Your task to perform on an android device: turn on javascript in the chrome app Image 0: 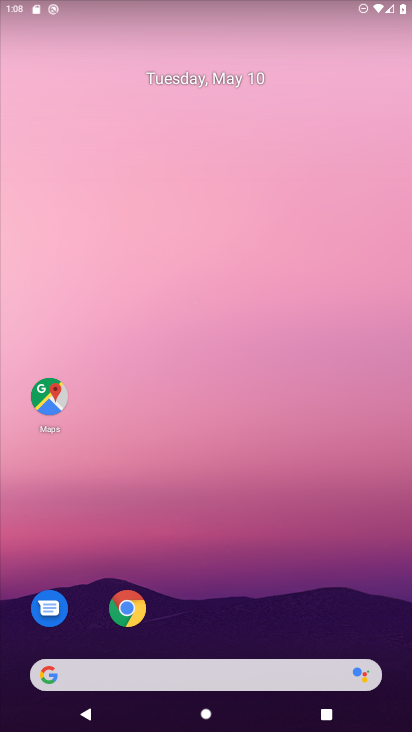
Step 0: drag from (327, 630) to (326, 226)
Your task to perform on an android device: turn on javascript in the chrome app Image 1: 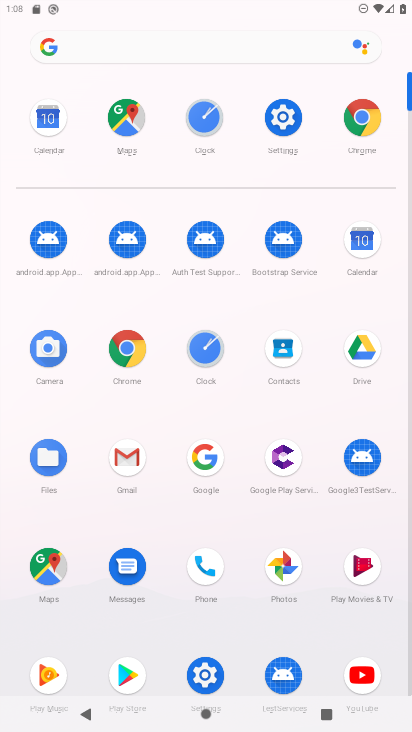
Step 1: click (119, 363)
Your task to perform on an android device: turn on javascript in the chrome app Image 2: 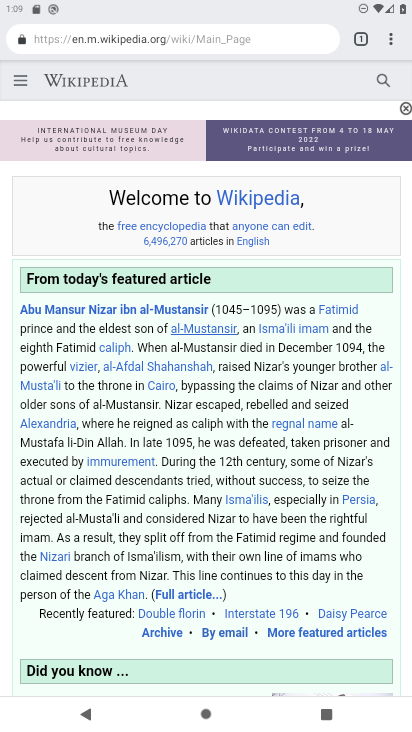
Step 2: drag from (388, 45) to (275, 472)
Your task to perform on an android device: turn on javascript in the chrome app Image 3: 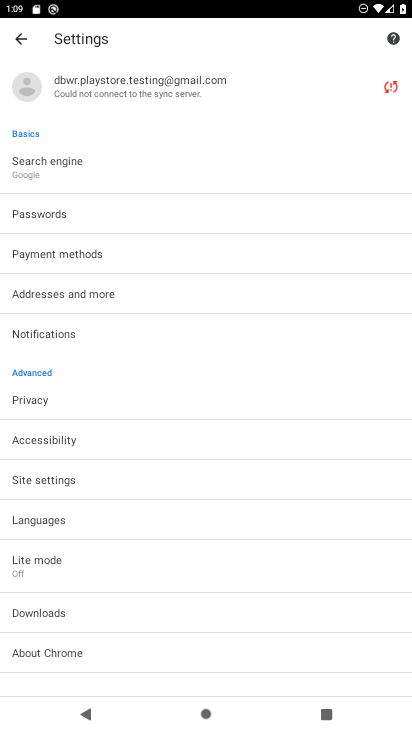
Step 3: click (73, 474)
Your task to perform on an android device: turn on javascript in the chrome app Image 4: 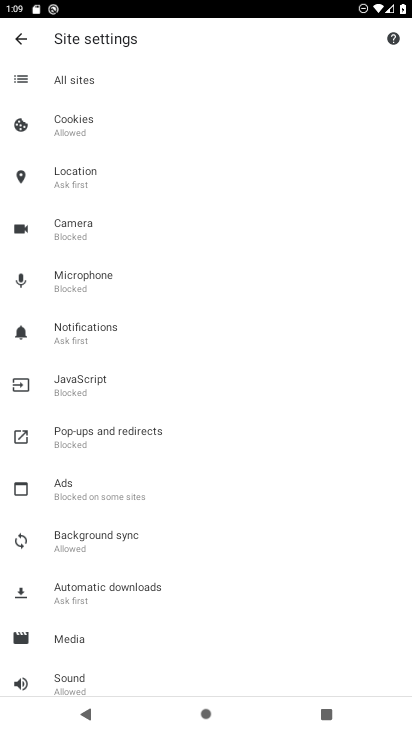
Step 4: click (96, 391)
Your task to perform on an android device: turn on javascript in the chrome app Image 5: 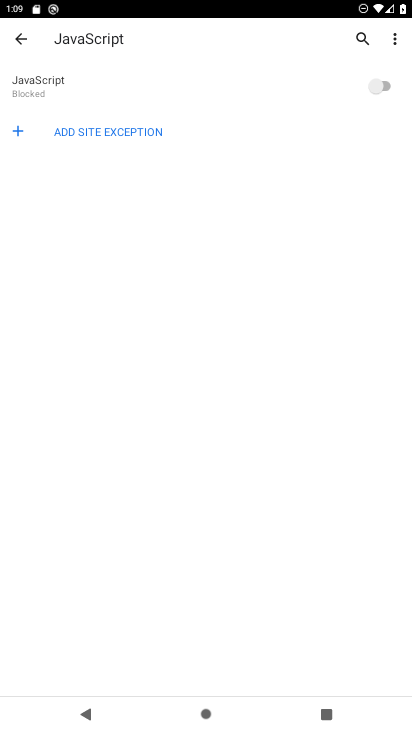
Step 5: click (381, 85)
Your task to perform on an android device: turn on javascript in the chrome app Image 6: 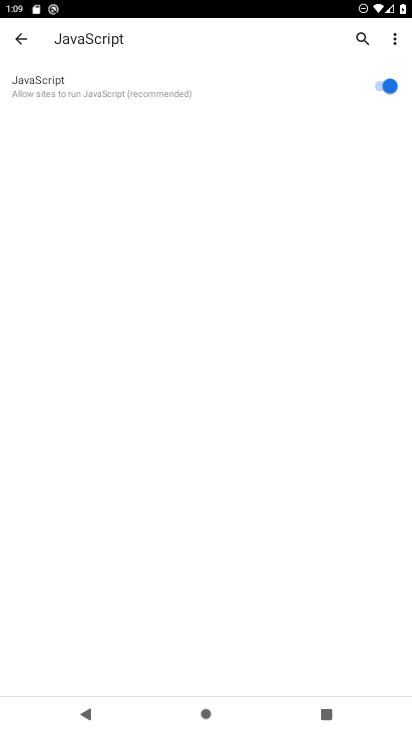
Step 6: task complete